Your task to perform on an android device: Open the map Image 0: 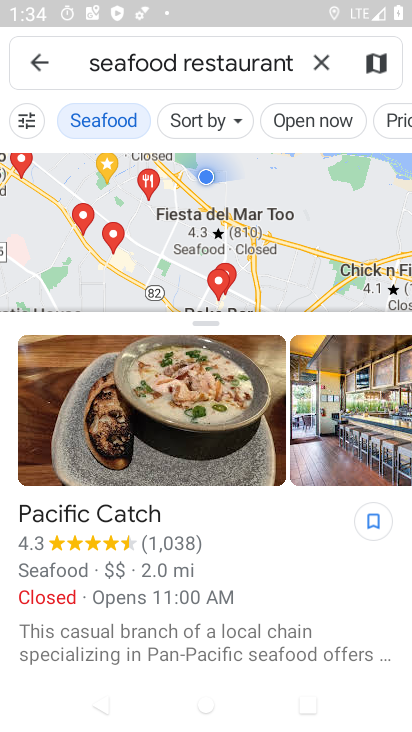
Step 0: task complete